Your task to perform on an android device: set the stopwatch Image 0: 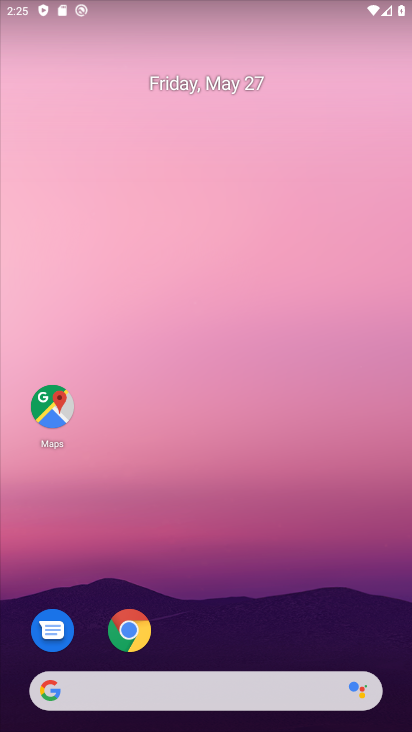
Step 0: drag from (213, 656) to (160, 92)
Your task to perform on an android device: set the stopwatch Image 1: 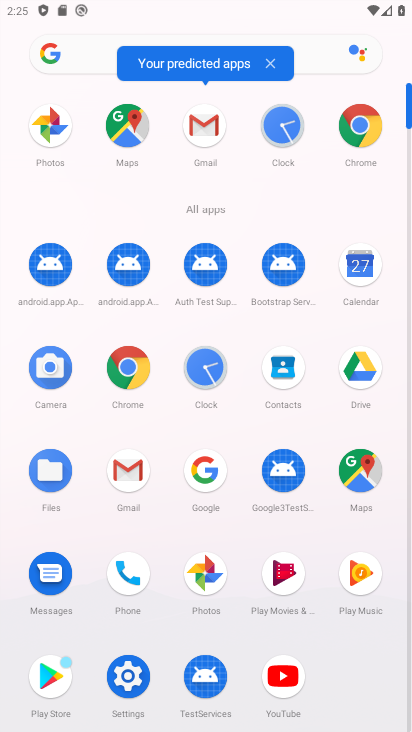
Step 1: click (200, 364)
Your task to perform on an android device: set the stopwatch Image 2: 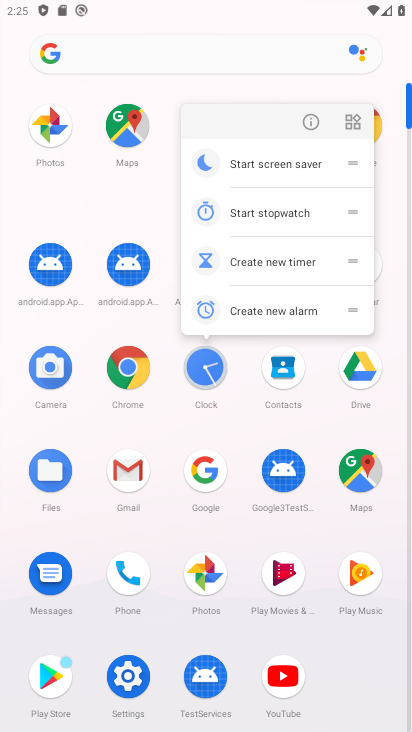
Step 2: click (200, 364)
Your task to perform on an android device: set the stopwatch Image 3: 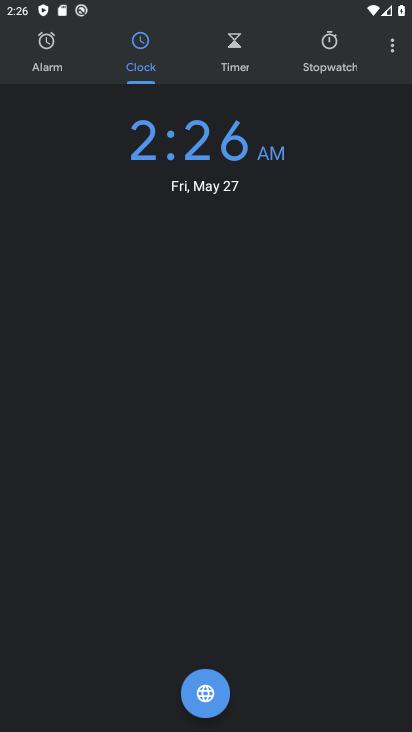
Step 3: click (224, 52)
Your task to perform on an android device: set the stopwatch Image 4: 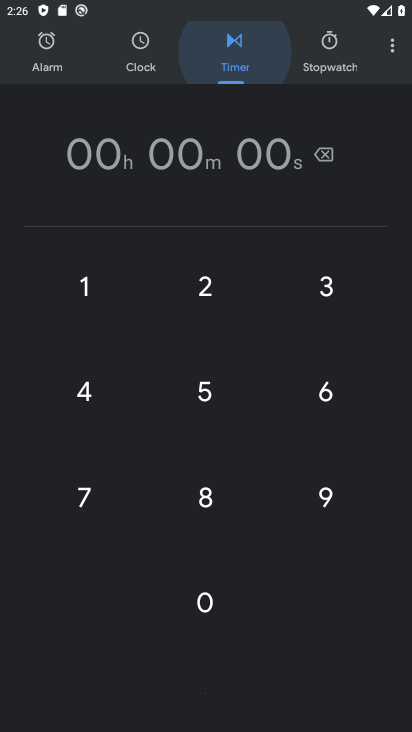
Step 4: click (332, 41)
Your task to perform on an android device: set the stopwatch Image 5: 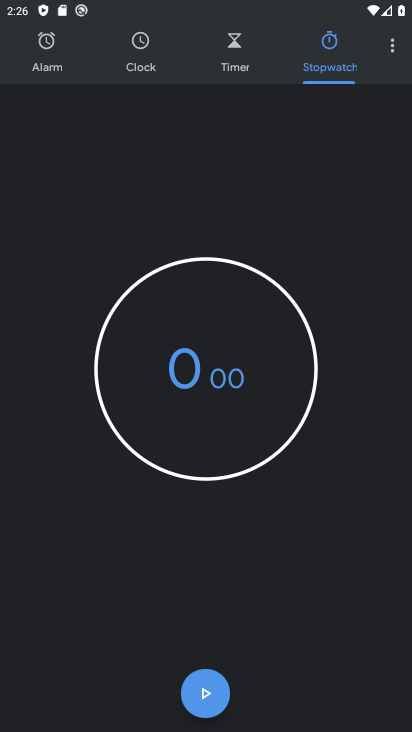
Step 5: task complete